Your task to perform on an android device: Open calendar and show me the second week of next month Image 0: 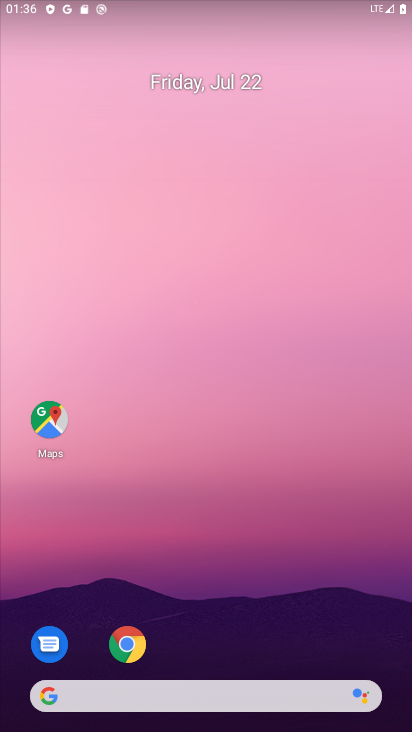
Step 0: drag from (296, 691) to (290, 254)
Your task to perform on an android device: Open calendar and show me the second week of next month Image 1: 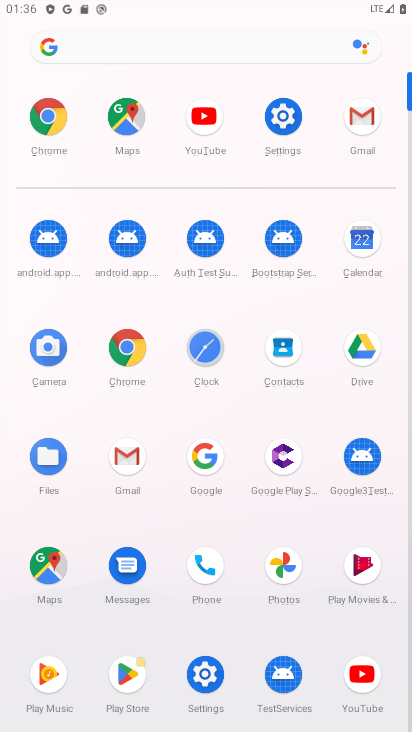
Step 1: click (353, 242)
Your task to perform on an android device: Open calendar and show me the second week of next month Image 2: 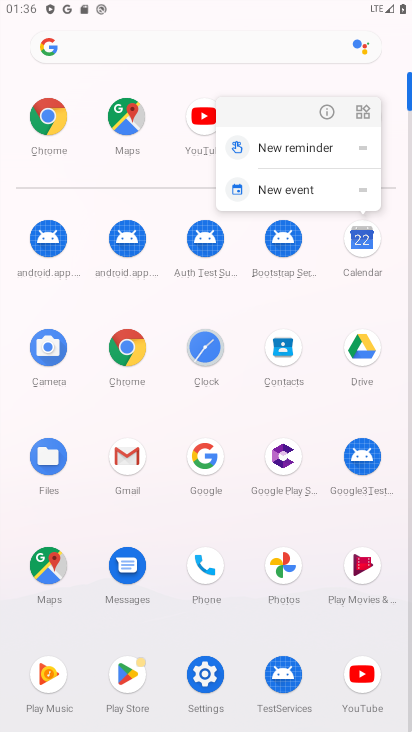
Step 2: click (353, 242)
Your task to perform on an android device: Open calendar and show me the second week of next month Image 3: 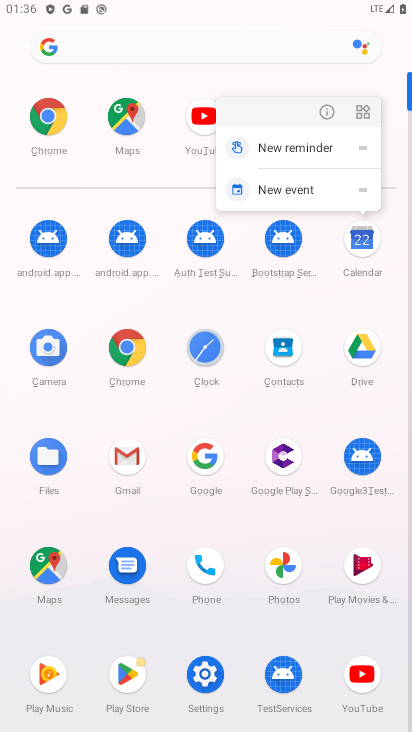
Step 3: click (353, 242)
Your task to perform on an android device: Open calendar and show me the second week of next month Image 4: 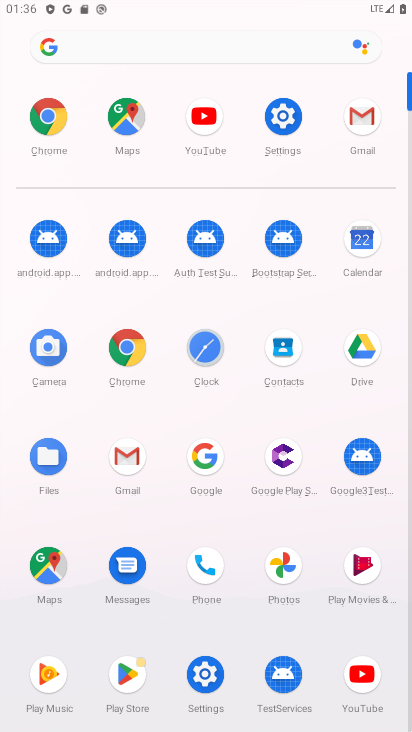
Step 4: click (353, 242)
Your task to perform on an android device: Open calendar and show me the second week of next month Image 5: 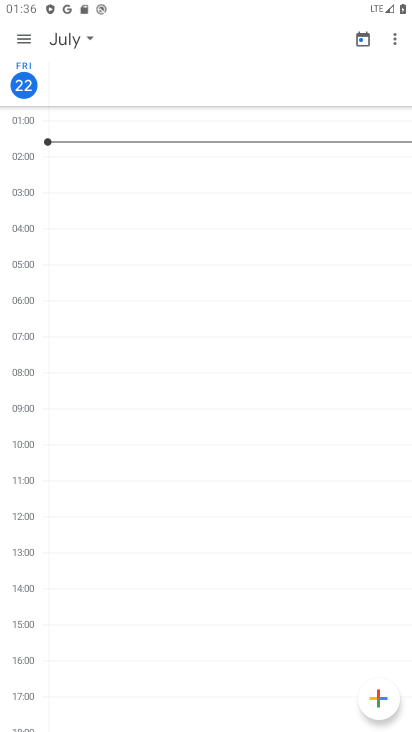
Step 5: click (61, 40)
Your task to perform on an android device: Open calendar and show me the second week of next month Image 6: 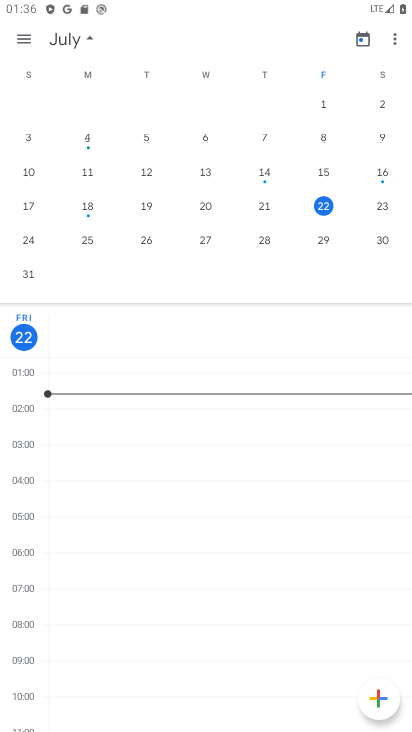
Step 6: drag from (376, 151) to (7, 196)
Your task to perform on an android device: Open calendar and show me the second week of next month Image 7: 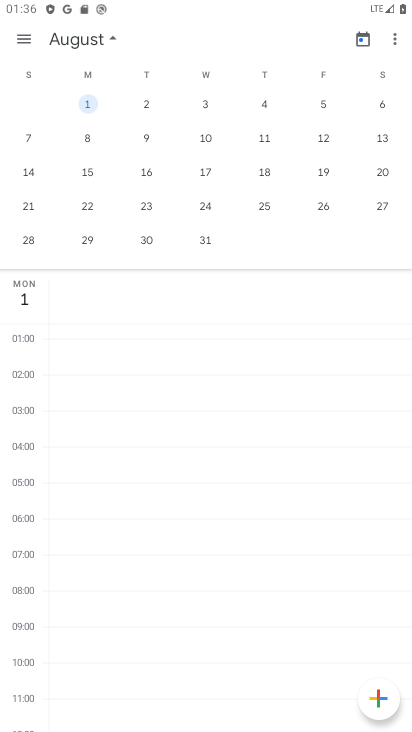
Step 7: click (24, 139)
Your task to perform on an android device: Open calendar and show me the second week of next month Image 8: 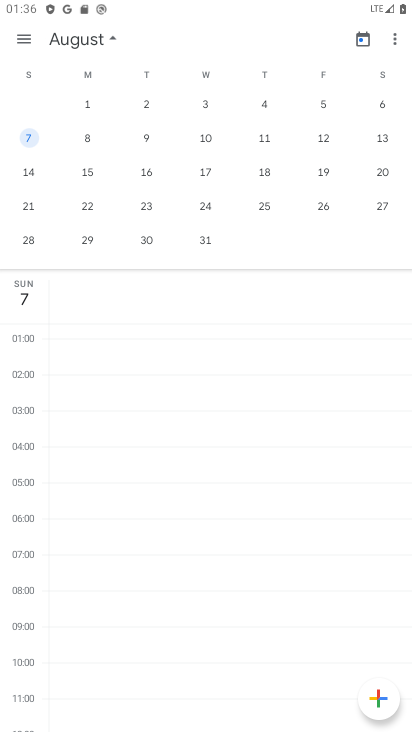
Step 8: task complete